Your task to perform on an android device: Open Maps and search for coffee Image 0: 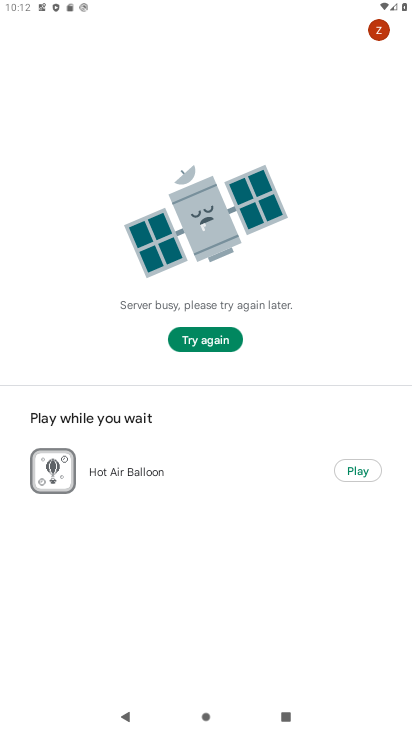
Step 0: press home button
Your task to perform on an android device: Open Maps and search for coffee Image 1: 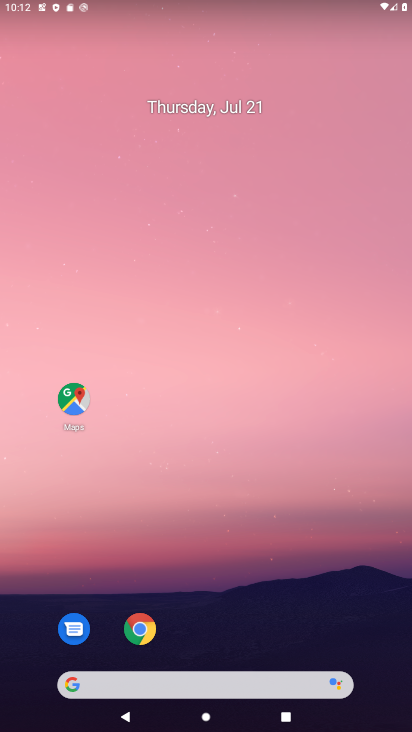
Step 1: click (77, 393)
Your task to perform on an android device: Open Maps and search for coffee Image 2: 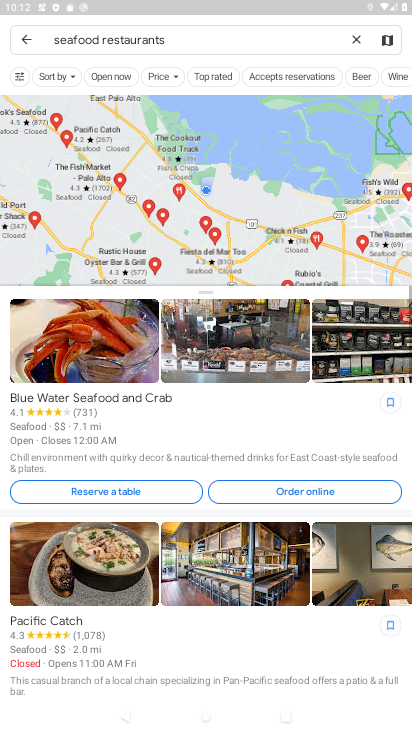
Step 2: click (356, 34)
Your task to perform on an android device: Open Maps and search for coffee Image 3: 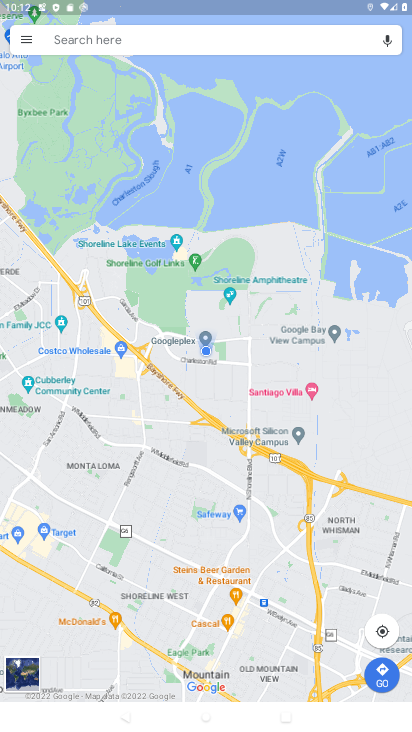
Step 3: click (111, 38)
Your task to perform on an android device: Open Maps and search for coffee Image 4: 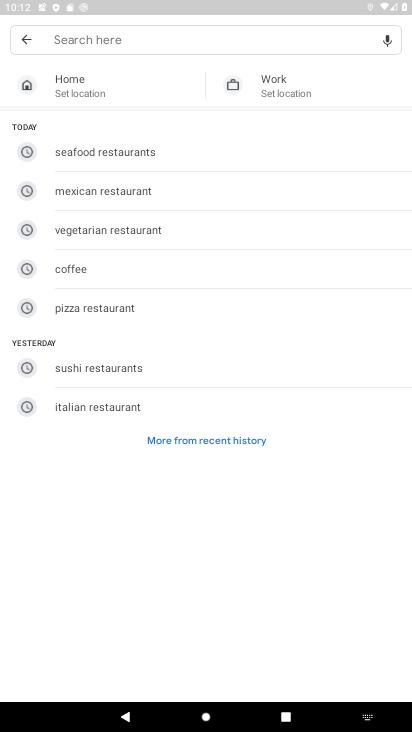
Step 4: type "coffee"
Your task to perform on an android device: Open Maps and search for coffee Image 5: 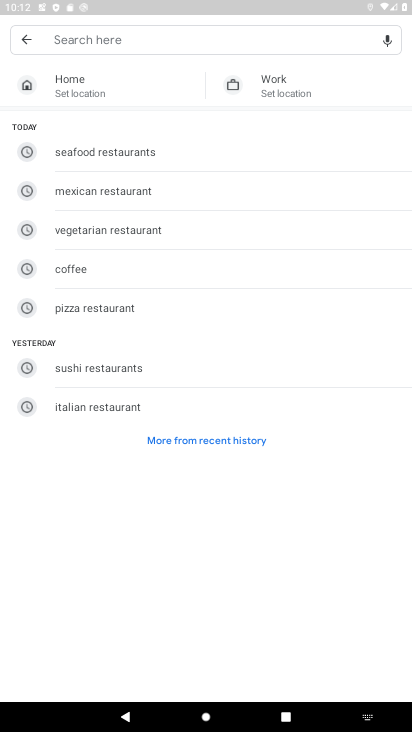
Step 5: click (84, 39)
Your task to perform on an android device: Open Maps and search for coffee Image 6: 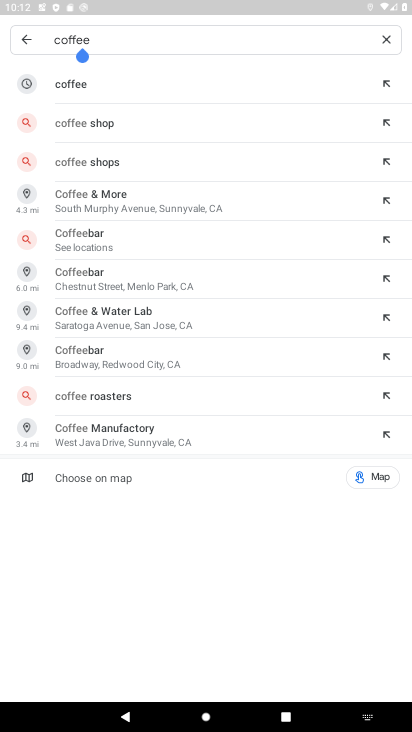
Step 6: press enter
Your task to perform on an android device: Open Maps and search for coffee Image 7: 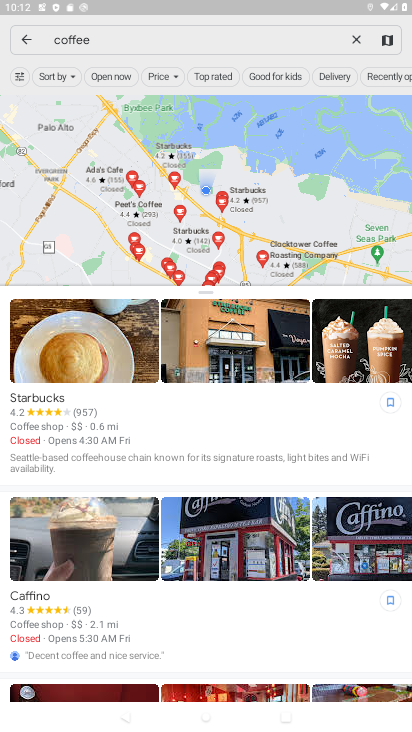
Step 7: task complete